Your task to perform on an android device: change the clock display to analog Image 0: 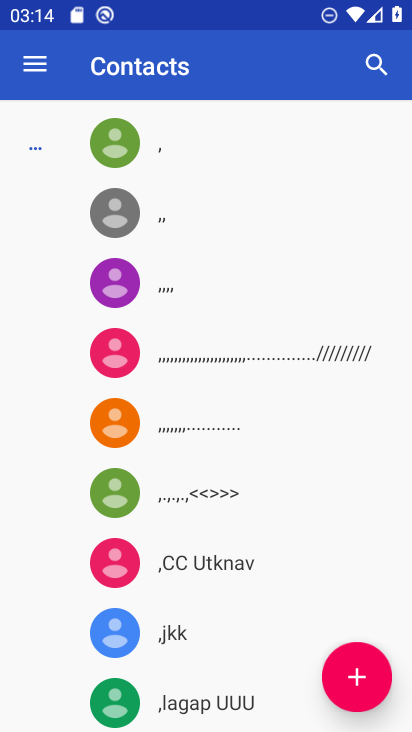
Step 0: press back button
Your task to perform on an android device: change the clock display to analog Image 1: 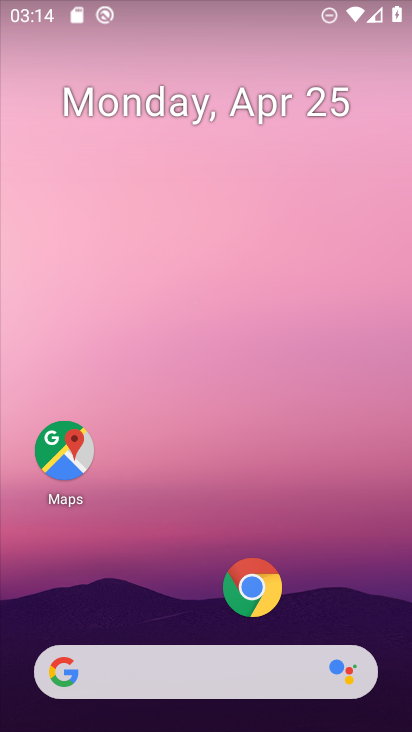
Step 1: drag from (198, 621) to (194, 152)
Your task to perform on an android device: change the clock display to analog Image 2: 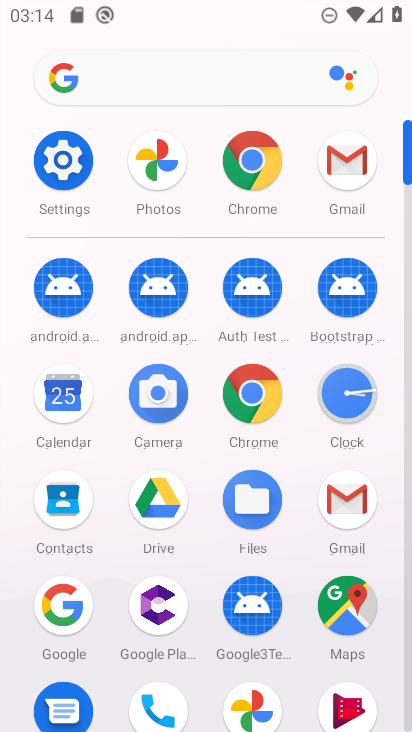
Step 2: click (342, 383)
Your task to perform on an android device: change the clock display to analog Image 3: 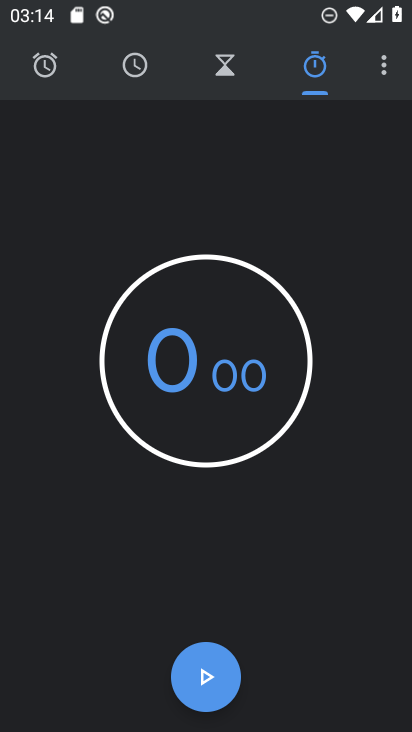
Step 3: click (377, 60)
Your task to perform on an android device: change the clock display to analog Image 4: 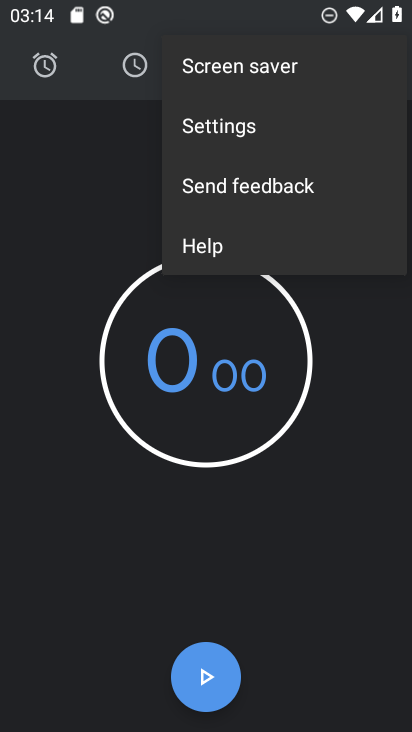
Step 4: click (272, 129)
Your task to perform on an android device: change the clock display to analog Image 5: 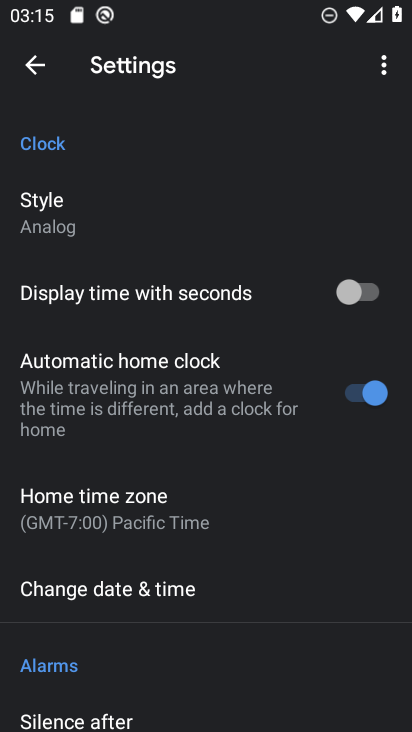
Step 5: click (82, 216)
Your task to perform on an android device: change the clock display to analog Image 6: 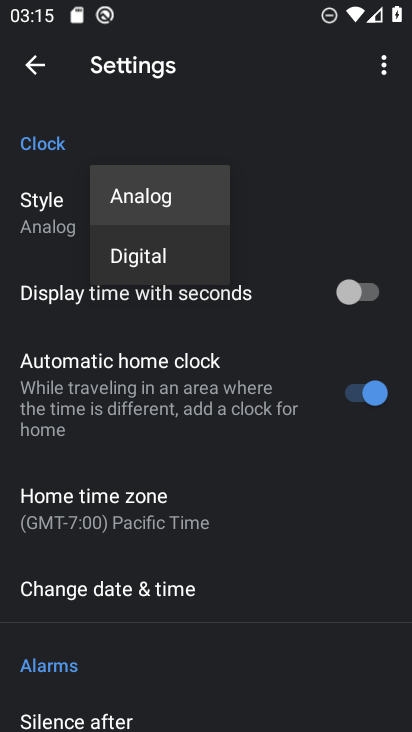
Step 6: click (190, 190)
Your task to perform on an android device: change the clock display to analog Image 7: 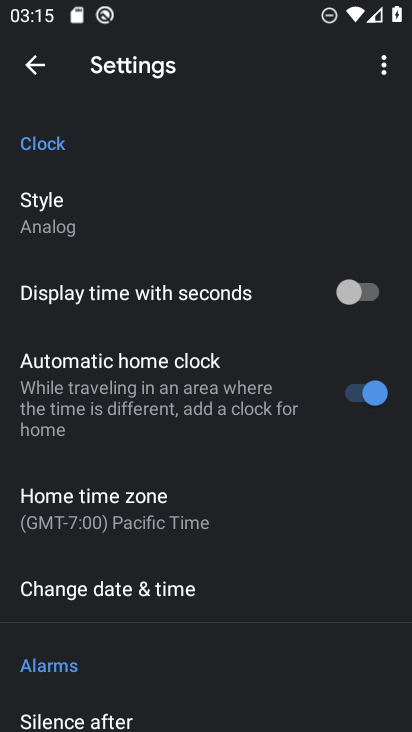
Step 7: task complete